Your task to perform on an android device: Go to Google maps Image 0: 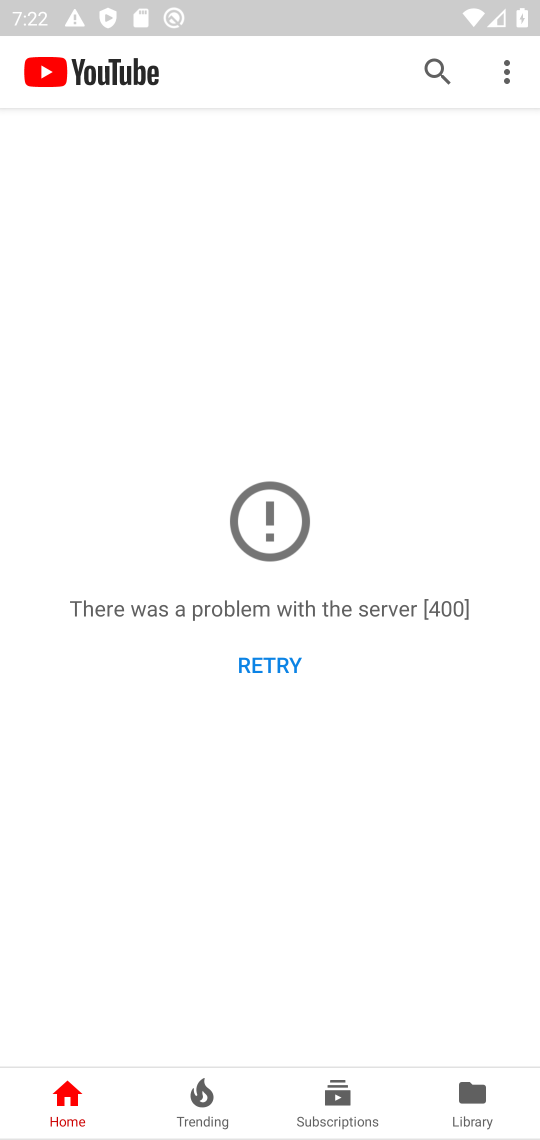
Step 0: press home button
Your task to perform on an android device: Go to Google maps Image 1: 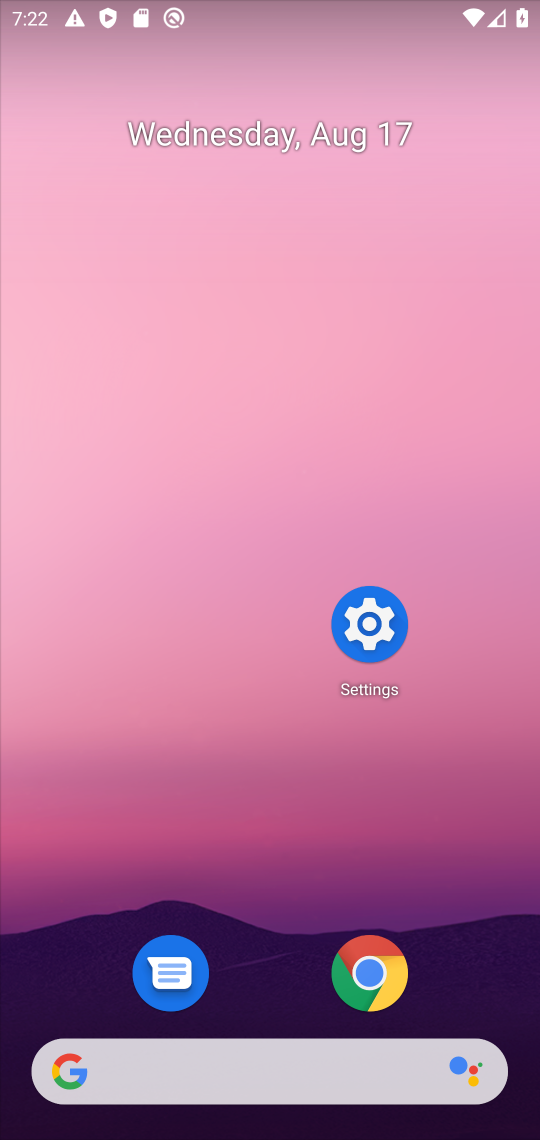
Step 1: drag from (255, 1066) to (363, 259)
Your task to perform on an android device: Go to Google maps Image 2: 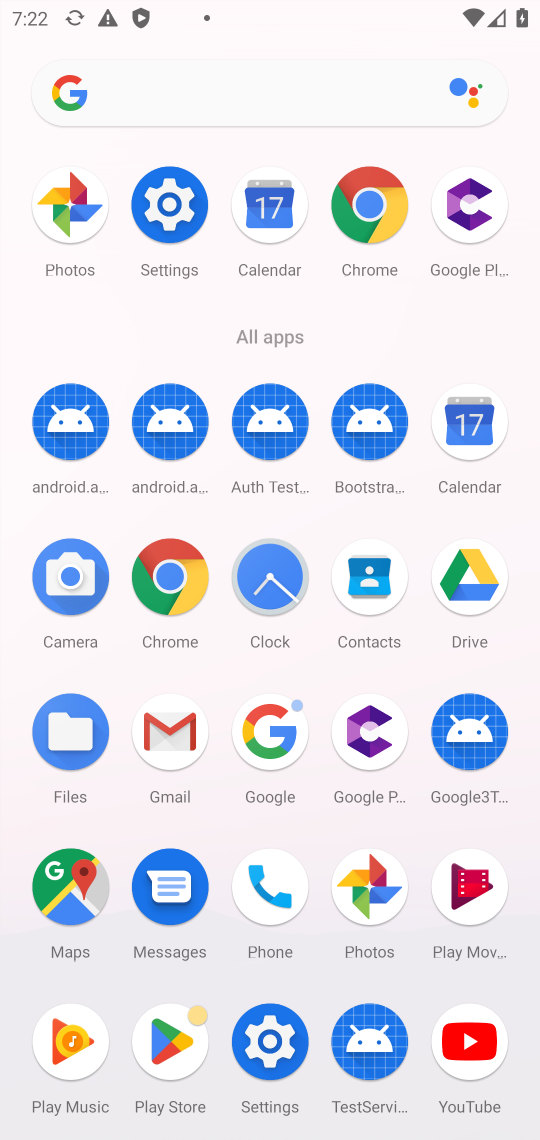
Step 2: drag from (93, 913) to (212, 572)
Your task to perform on an android device: Go to Google maps Image 3: 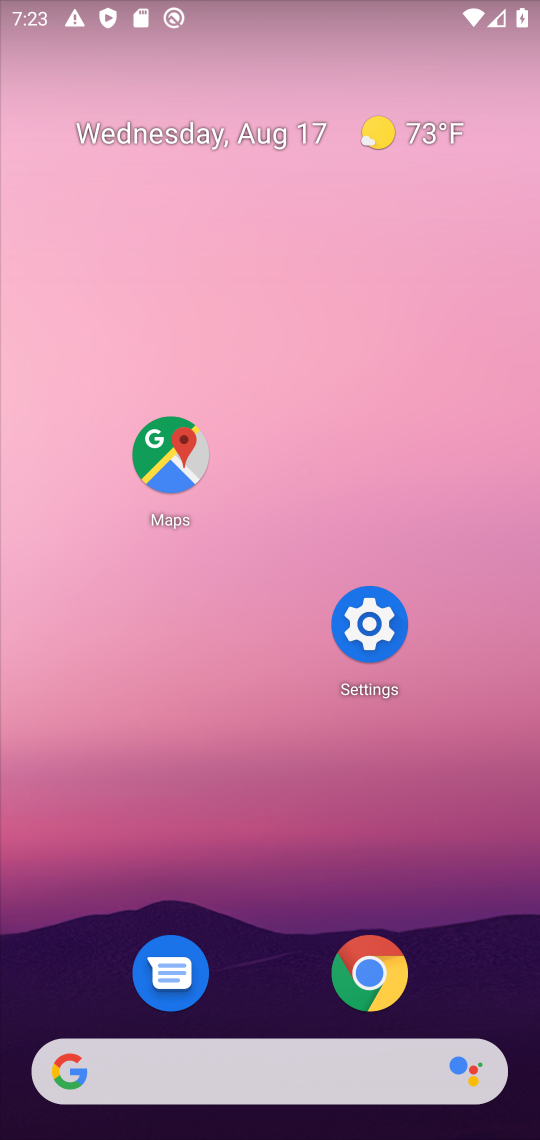
Step 3: click (183, 482)
Your task to perform on an android device: Go to Google maps Image 4: 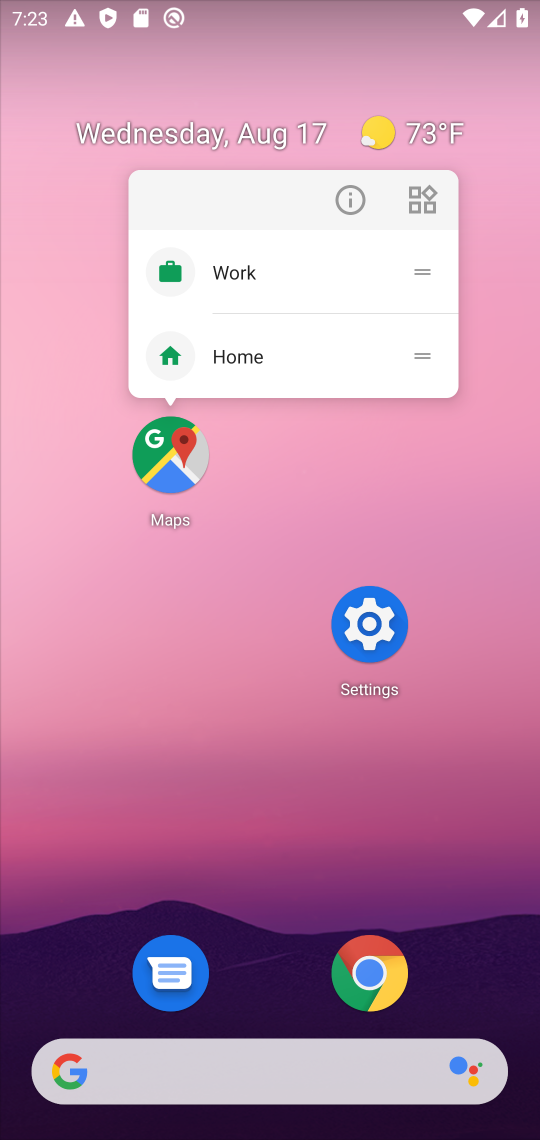
Step 4: click (163, 439)
Your task to perform on an android device: Go to Google maps Image 5: 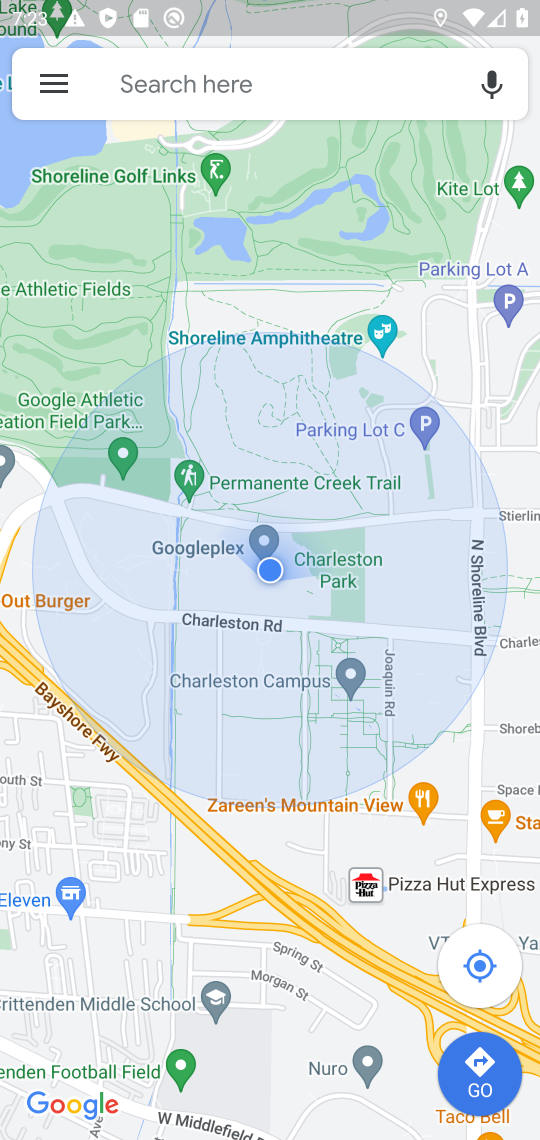
Step 5: task complete